Your task to perform on an android device: Go to Android settings Image 0: 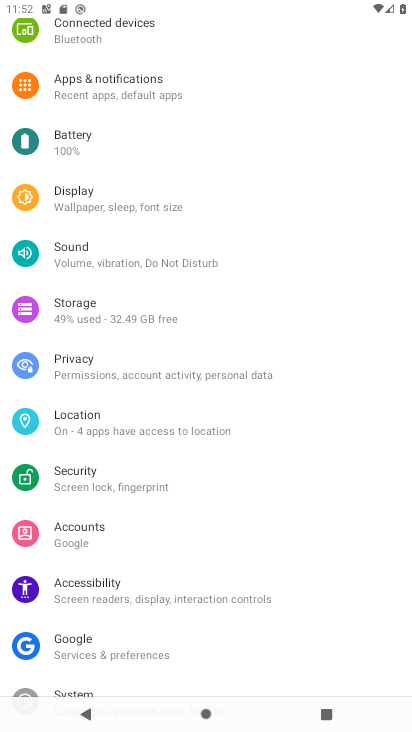
Step 0: drag from (192, 586) to (173, 207)
Your task to perform on an android device: Go to Android settings Image 1: 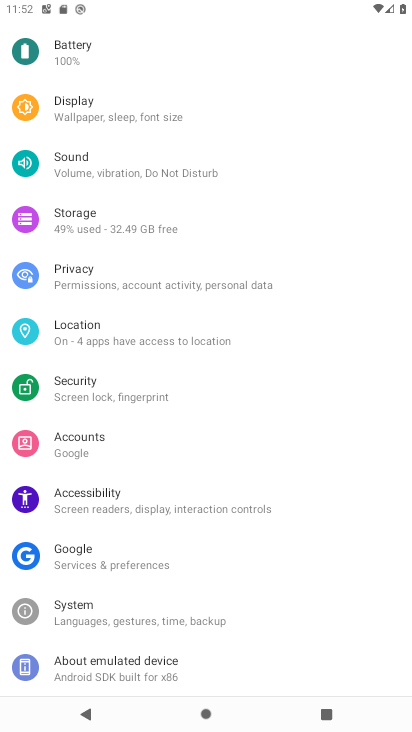
Step 1: click (126, 660)
Your task to perform on an android device: Go to Android settings Image 2: 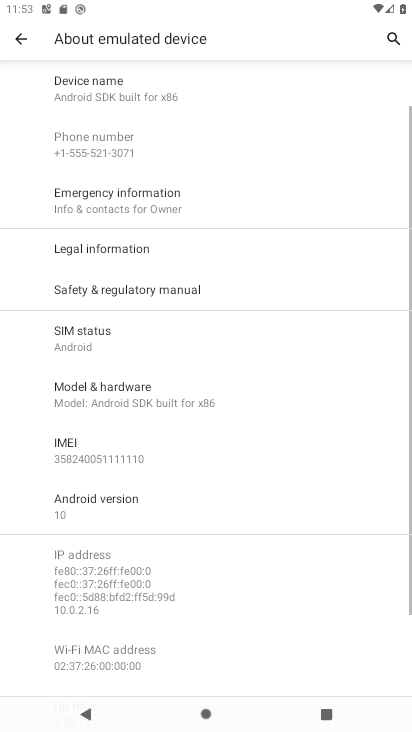
Step 2: task complete